Your task to perform on an android device: remove spam from my inbox in the gmail app Image 0: 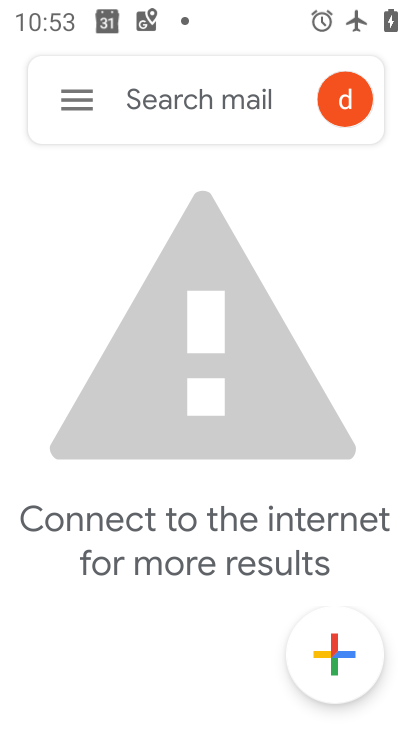
Step 0: press home button
Your task to perform on an android device: remove spam from my inbox in the gmail app Image 1: 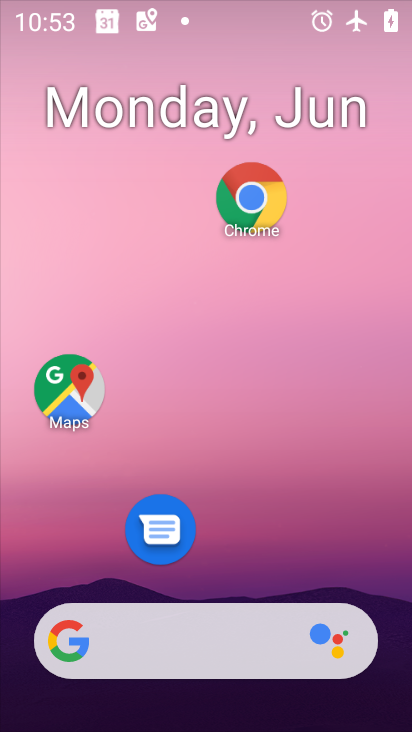
Step 1: drag from (234, 580) to (216, 141)
Your task to perform on an android device: remove spam from my inbox in the gmail app Image 2: 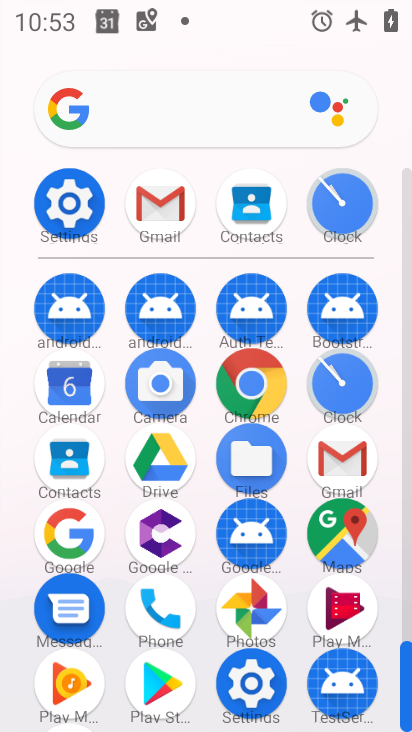
Step 2: click (165, 220)
Your task to perform on an android device: remove spam from my inbox in the gmail app Image 3: 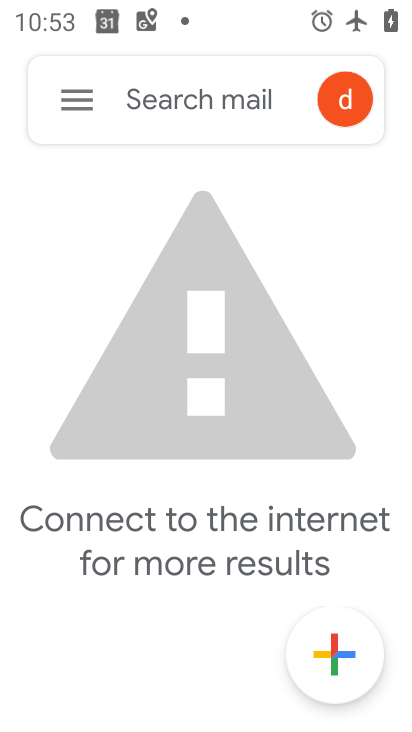
Step 3: click (71, 106)
Your task to perform on an android device: remove spam from my inbox in the gmail app Image 4: 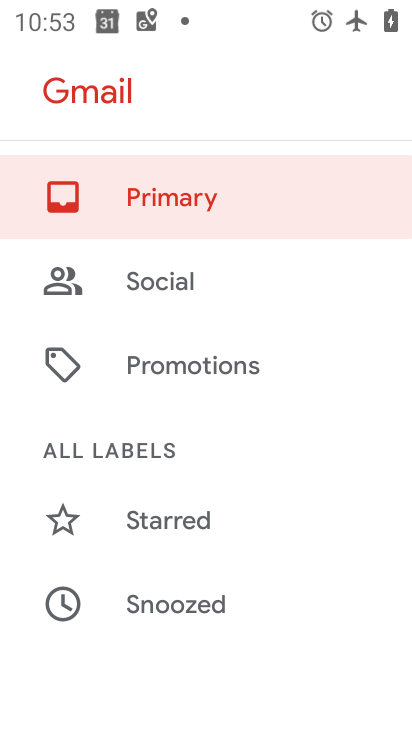
Step 4: drag from (178, 561) to (173, 250)
Your task to perform on an android device: remove spam from my inbox in the gmail app Image 5: 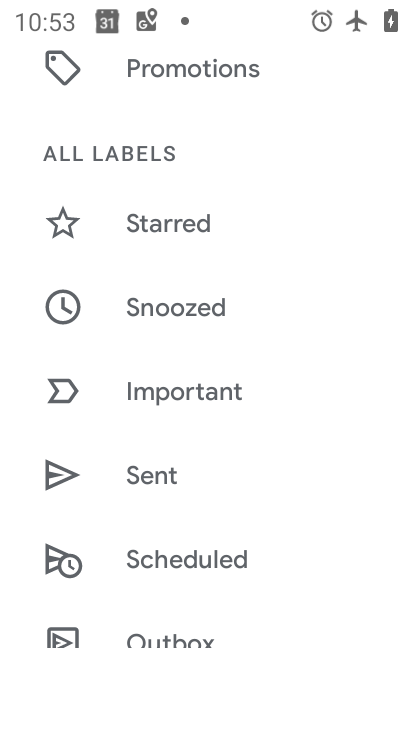
Step 5: drag from (207, 594) to (209, 327)
Your task to perform on an android device: remove spam from my inbox in the gmail app Image 6: 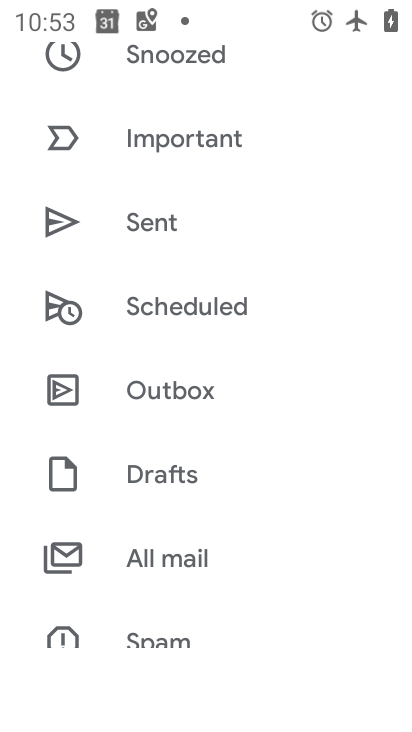
Step 6: drag from (210, 514) to (203, 269)
Your task to perform on an android device: remove spam from my inbox in the gmail app Image 7: 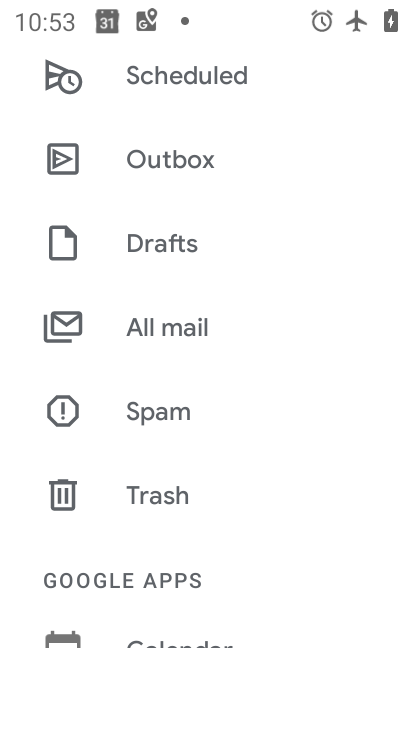
Step 7: click (193, 422)
Your task to perform on an android device: remove spam from my inbox in the gmail app Image 8: 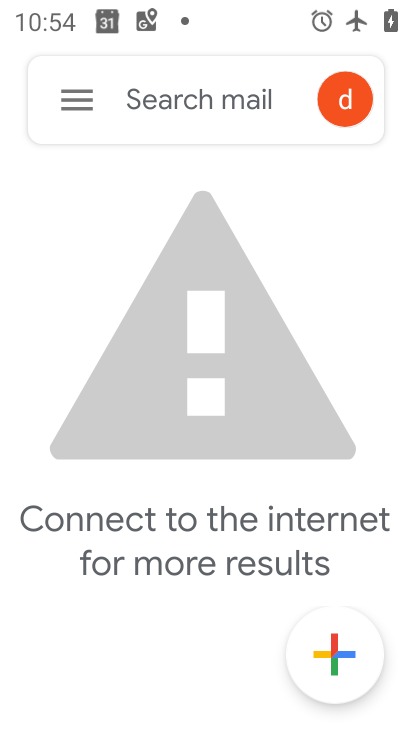
Step 8: task complete